Your task to perform on an android device: turn on data saver in the chrome app Image 0: 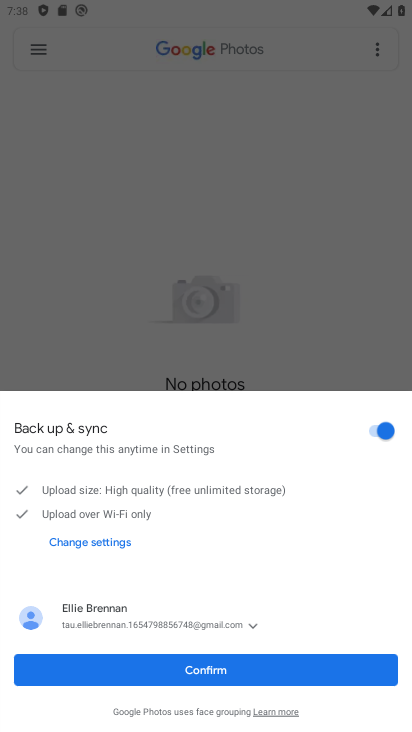
Step 0: press home button
Your task to perform on an android device: turn on data saver in the chrome app Image 1: 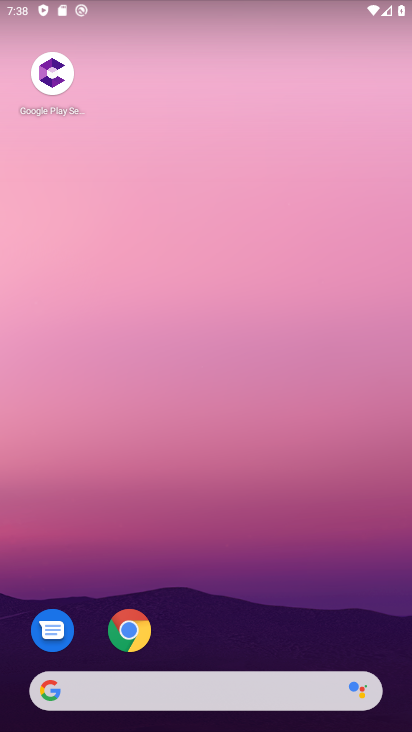
Step 1: click (141, 635)
Your task to perform on an android device: turn on data saver in the chrome app Image 2: 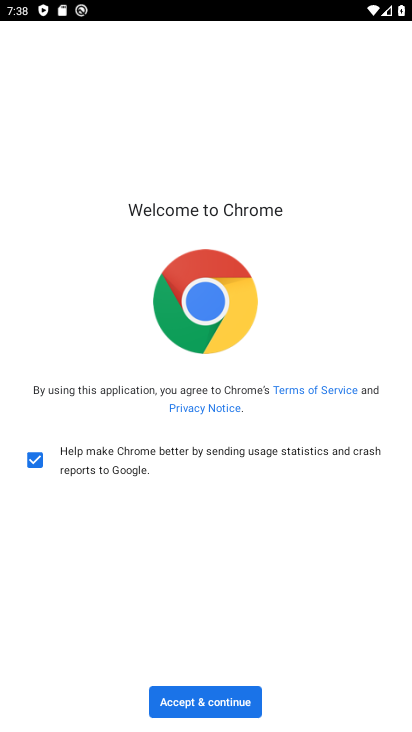
Step 2: click (244, 709)
Your task to perform on an android device: turn on data saver in the chrome app Image 3: 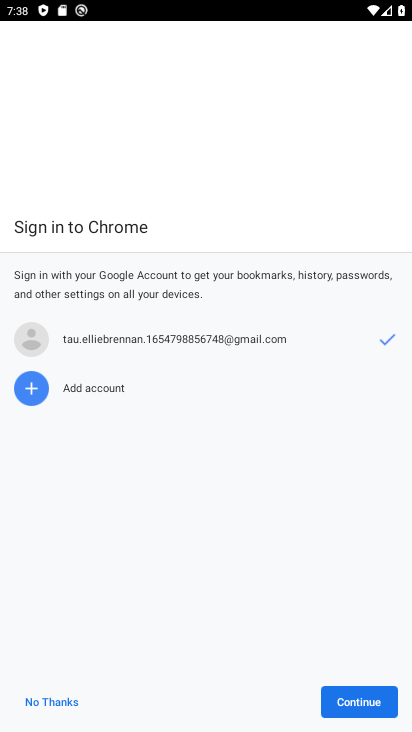
Step 3: click (359, 707)
Your task to perform on an android device: turn on data saver in the chrome app Image 4: 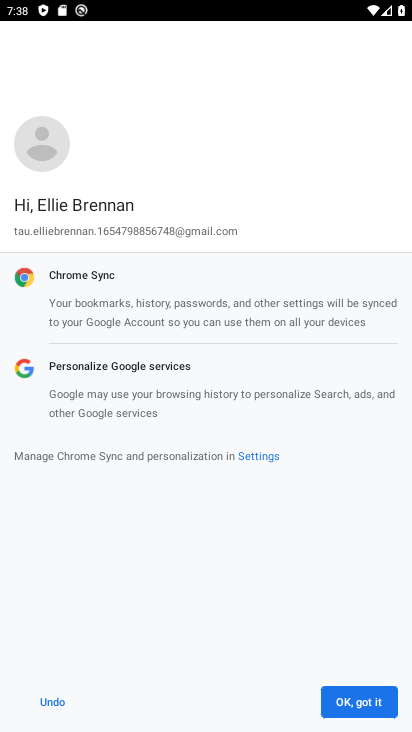
Step 4: click (354, 712)
Your task to perform on an android device: turn on data saver in the chrome app Image 5: 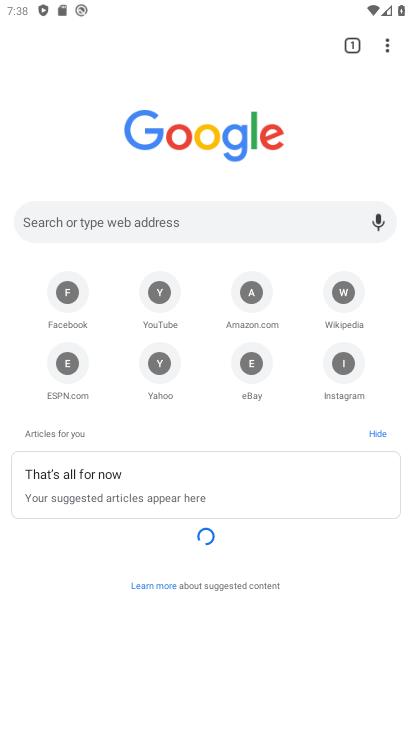
Step 5: click (392, 49)
Your task to perform on an android device: turn on data saver in the chrome app Image 6: 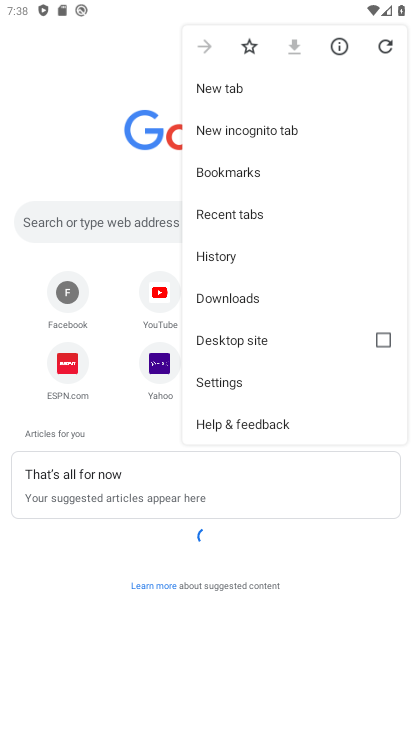
Step 6: click (255, 375)
Your task to perform on an android device: turn on data saver in the chrome app Image 7: 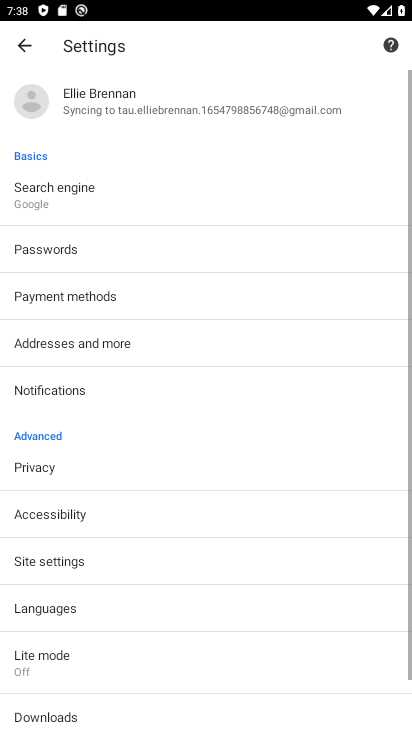
Step 7: drag from (195, 547) to (129, 180)
Your task to perform on an android device: turn on data saver in the chrome app Image 8: 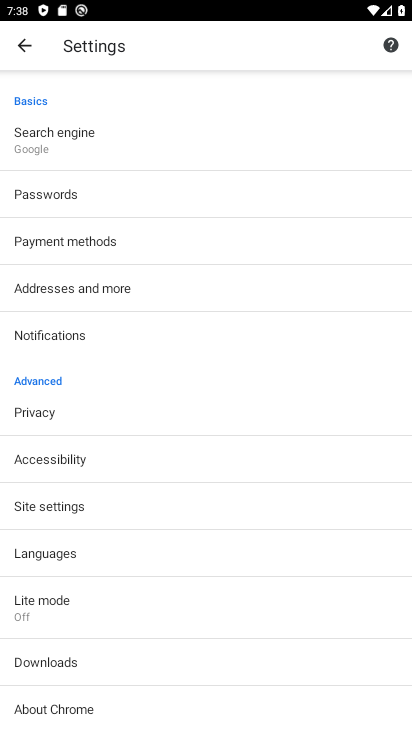
Step 8: click (71, 611)
Your task to perform on an android device: turn on data saver in the chrome app Image 9: 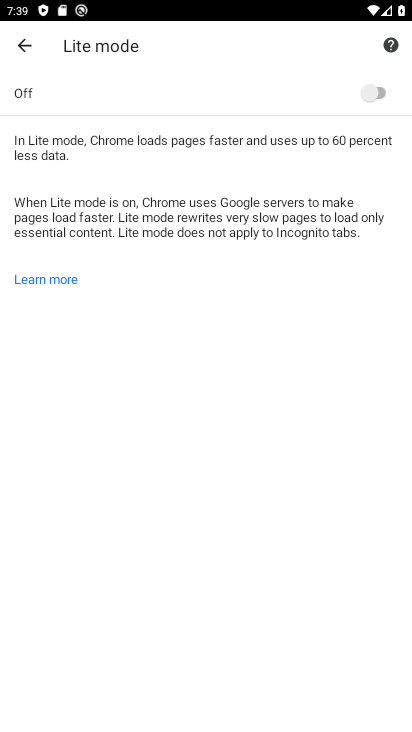
Step 9: click (388, 94)
Your task to perform on an android device: turn on data saver in the chrome app Image 10: 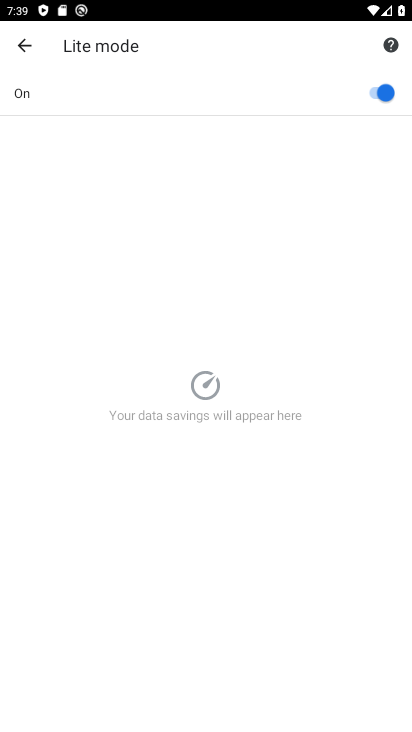
Step 10: task complete